Your task to perform on an android device: Open notification settings Image 0: 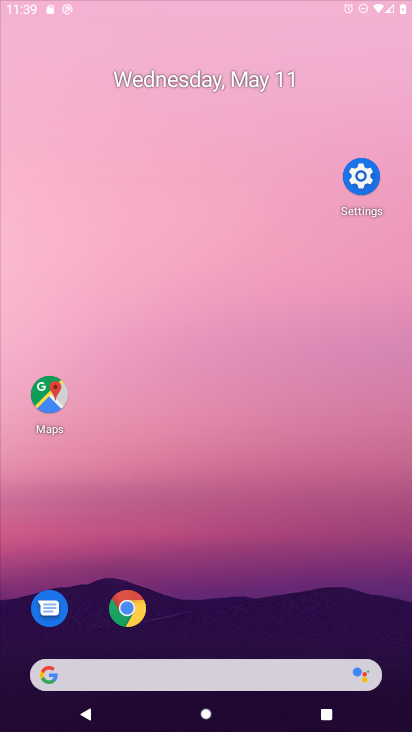
Step 0: drag from (395, 612) to (219, 151)
Your task to perform on an android device: Open notification settings Image 1: 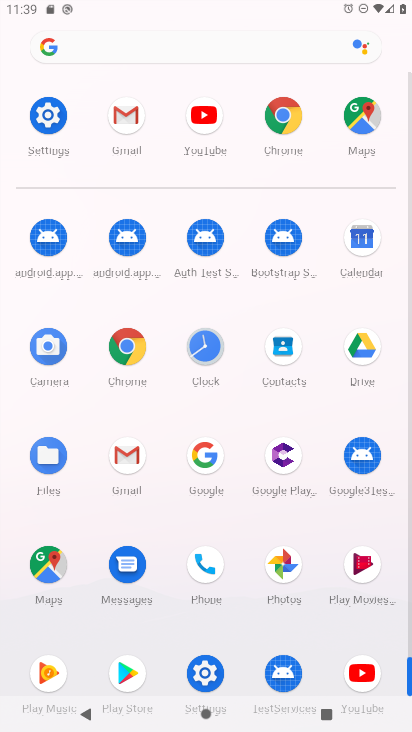
Step 1: click (42, 123)
Your task to perform on an android device: Open notification settings Image 2: 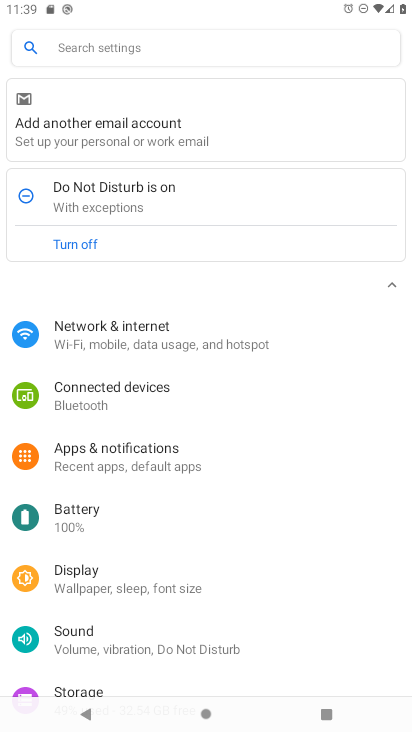
Step 2: click (102, 448)
Your task to perform on an android device: Open notification settings Image 3: 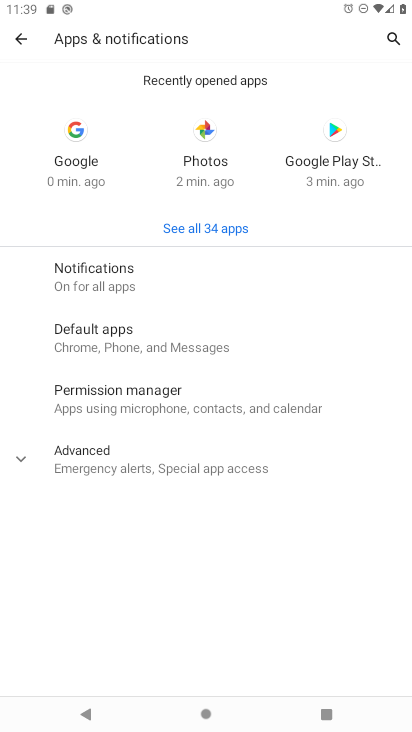
Step 3: click (89, 275)
Your task to perform on an android device: Open notification settings Image 4: 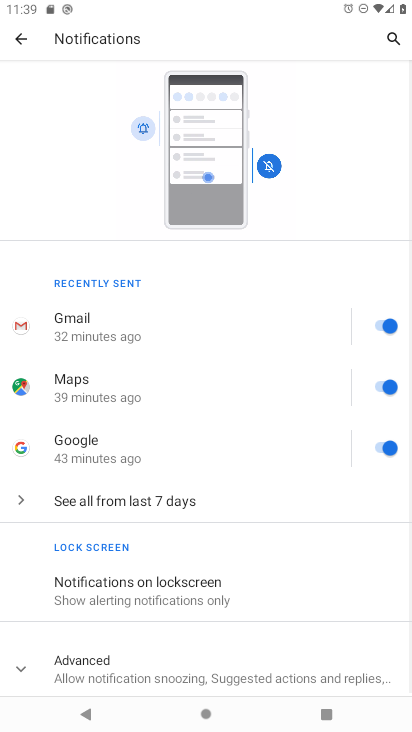
Step 4: drag from (181, 590) to (174, 170)
Your task to perform on an android device: Open notification settings Image 5: 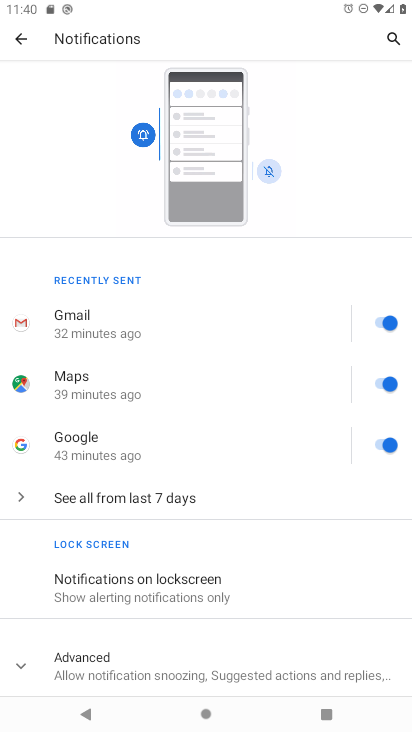
Step 5: click (83, 667)
Your task to perform on an android device: Open notification settings Image 6: 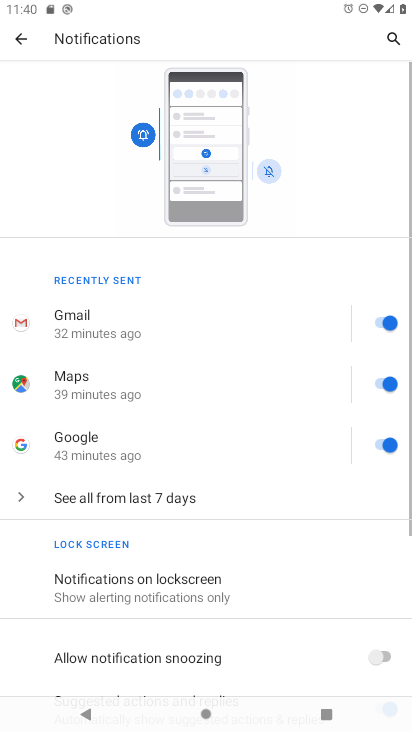
Step 6: task complete